Your task to perform on an android device: What's the weather today? Image 0: 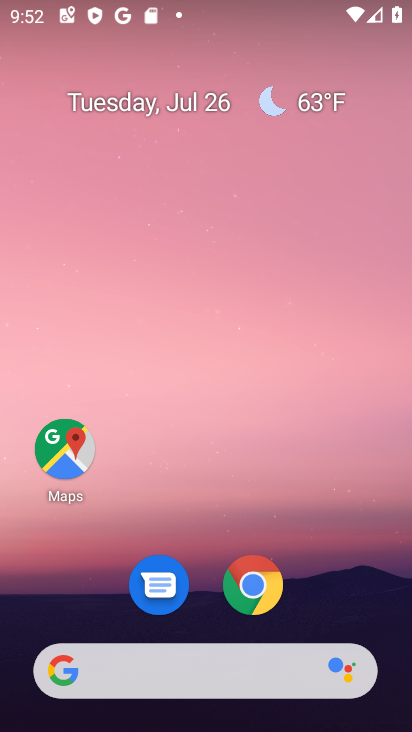
Step 0: click (232, 674)
Your task to perform on an android device: What's the weather today? Image 1: 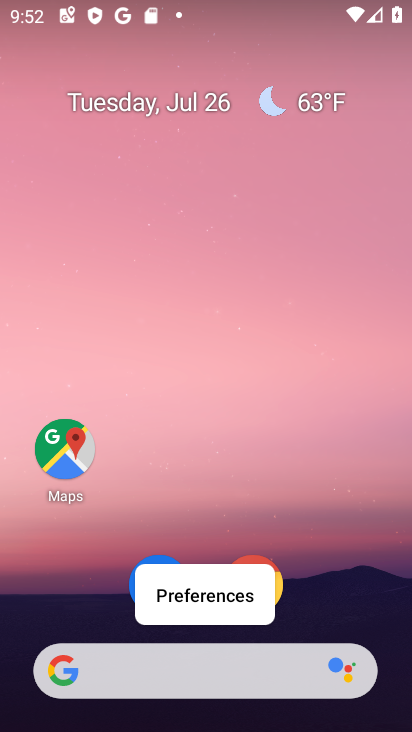
Step 1: click (176, 681)
Your task to perform on an android device: What's the weather today? Image 2: 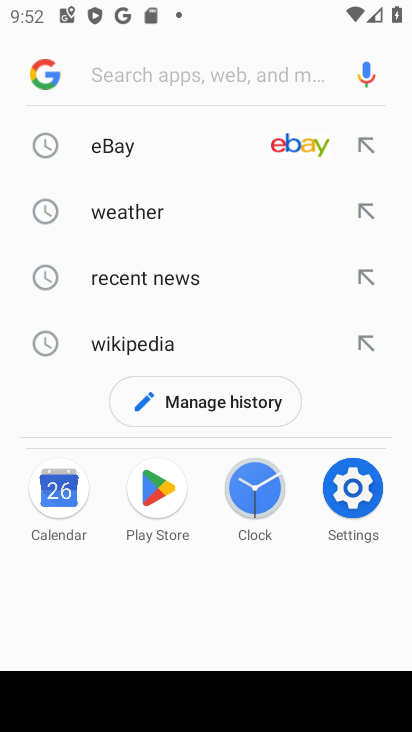
Step 2: click (143, 209)
Your task to perform on an android device: What's the weather today? Image 3: 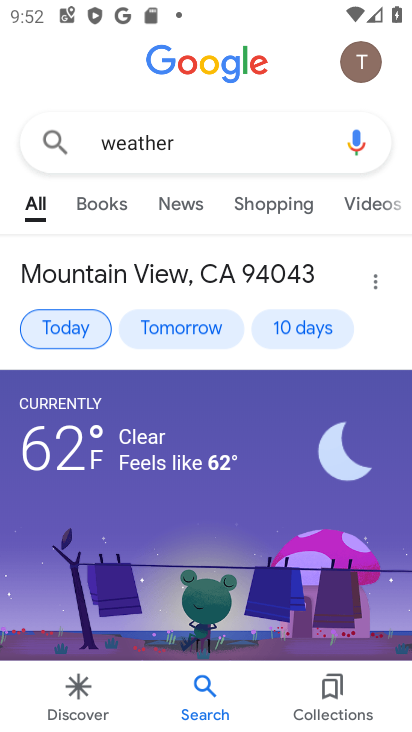
Step 3: click (69, 325)
Your task to perform on an android device: What's the weather today? Image 4: 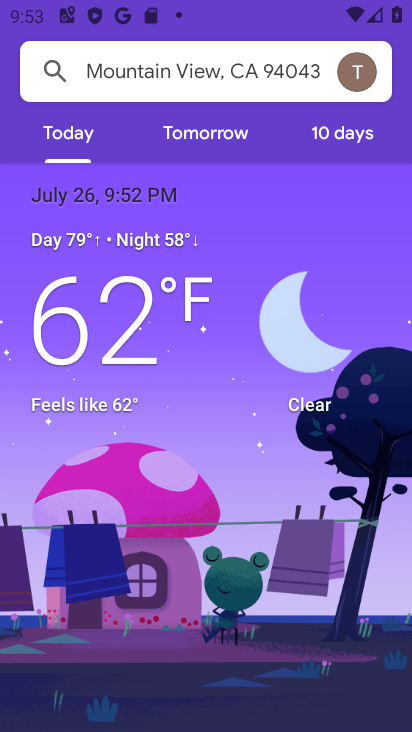
Step 4: task complete